Your task to perform on an android device: uninstall "Flipkart Online Shopping App" Image 0: 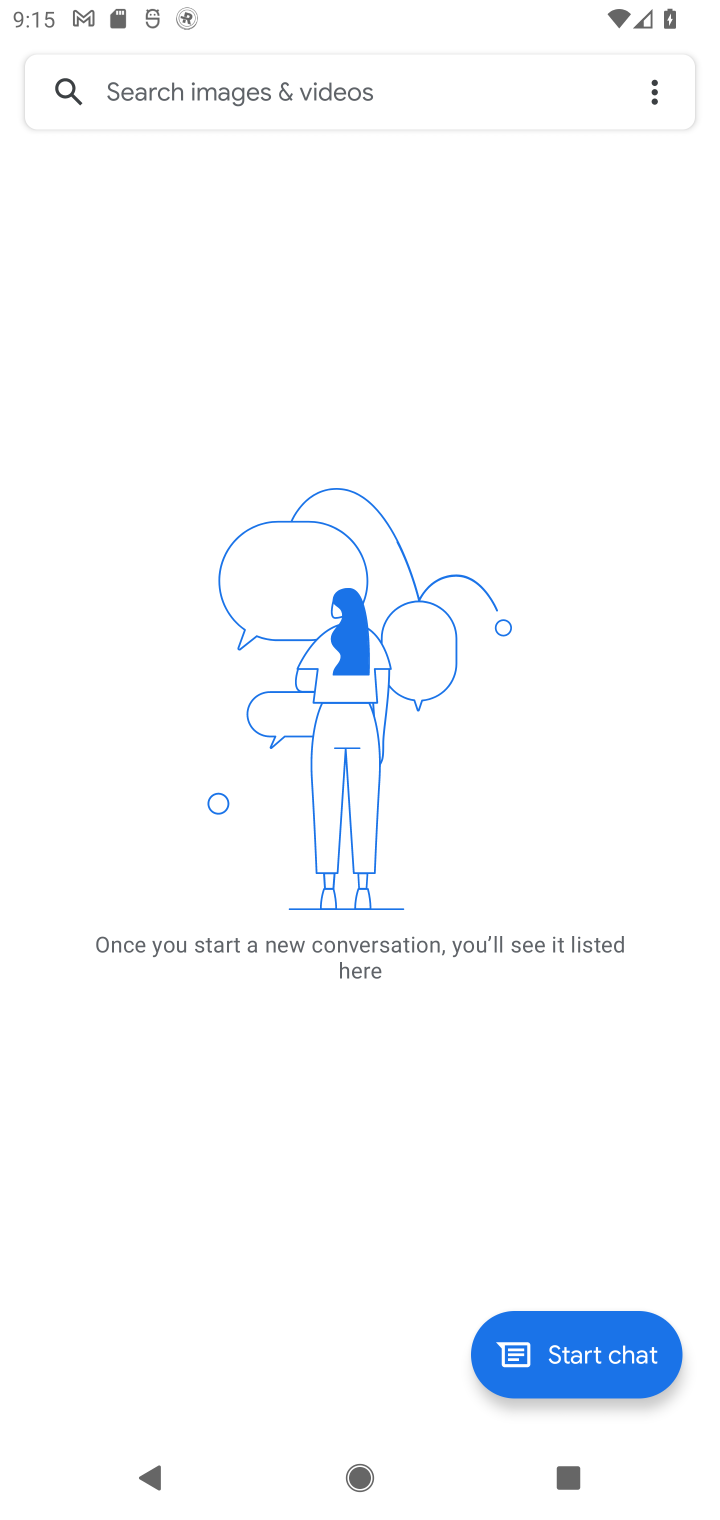
Step 0: press home button
Your task to perform on an android device: uninstall "Flipkart Online Shopping App" Image 1: 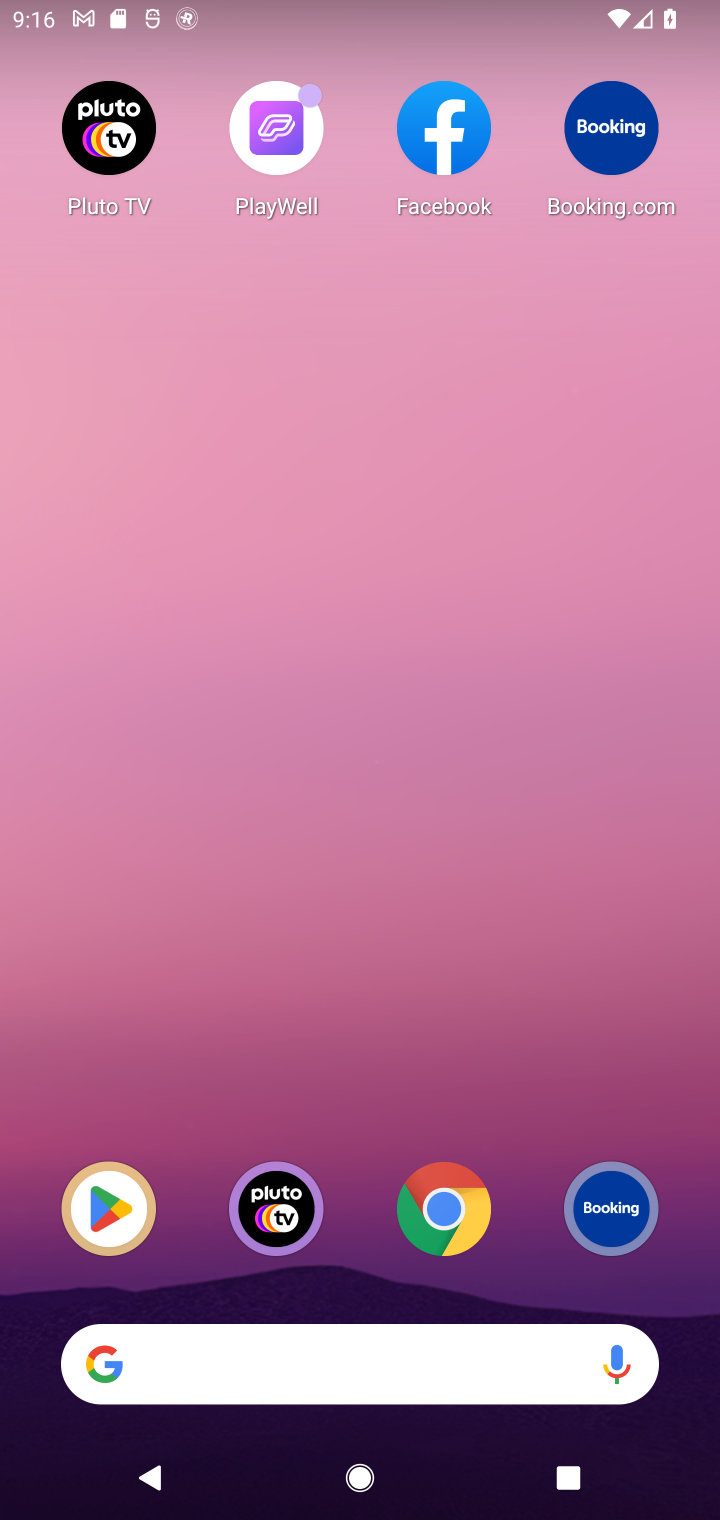
Step 1: drag from (291, 1357) to (385, 86)
Your task to perform on an android device: uninstall "Flipkart Online Shopping App" Image 2: 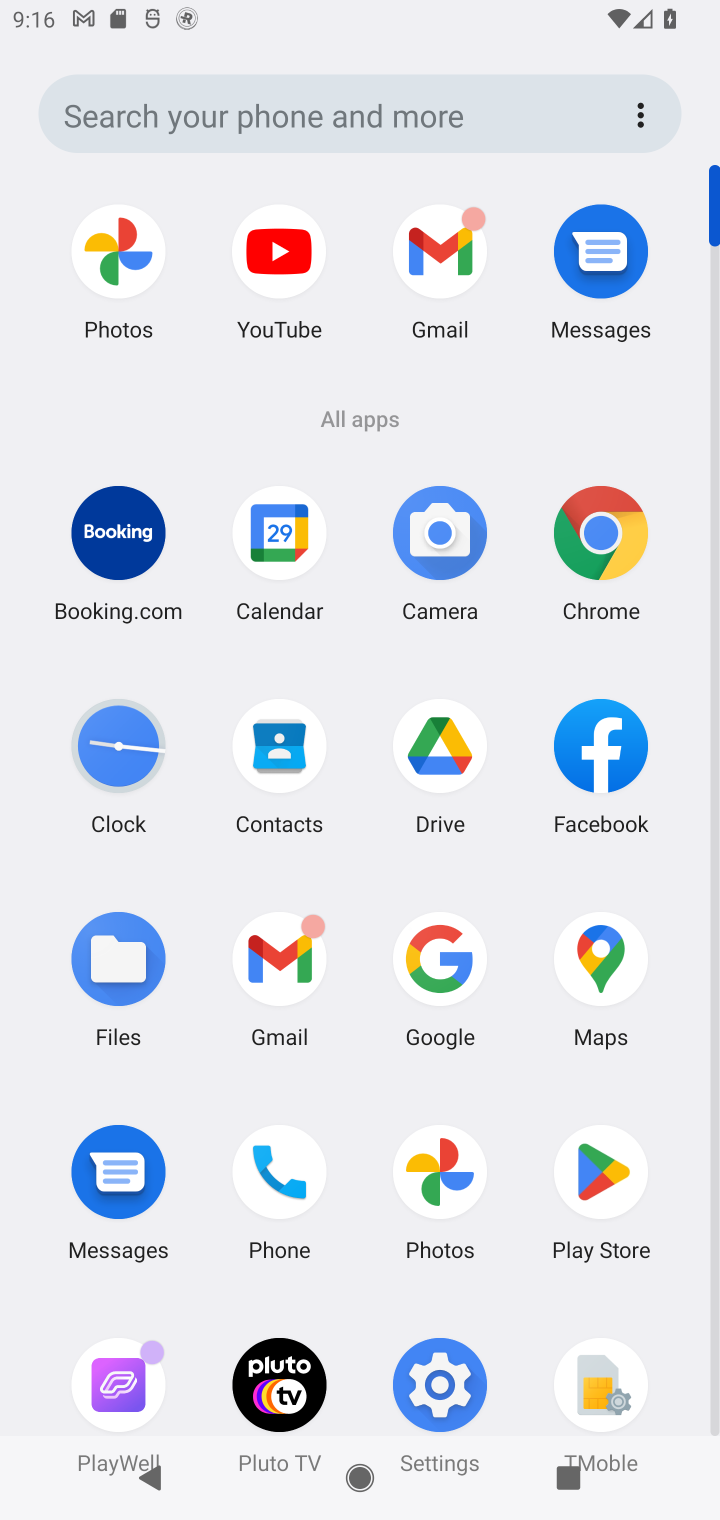
Step 2: click (608, 1164)
Your task to perform on an android device: uninstall "Flipkart Online Shopping App" Image 3: 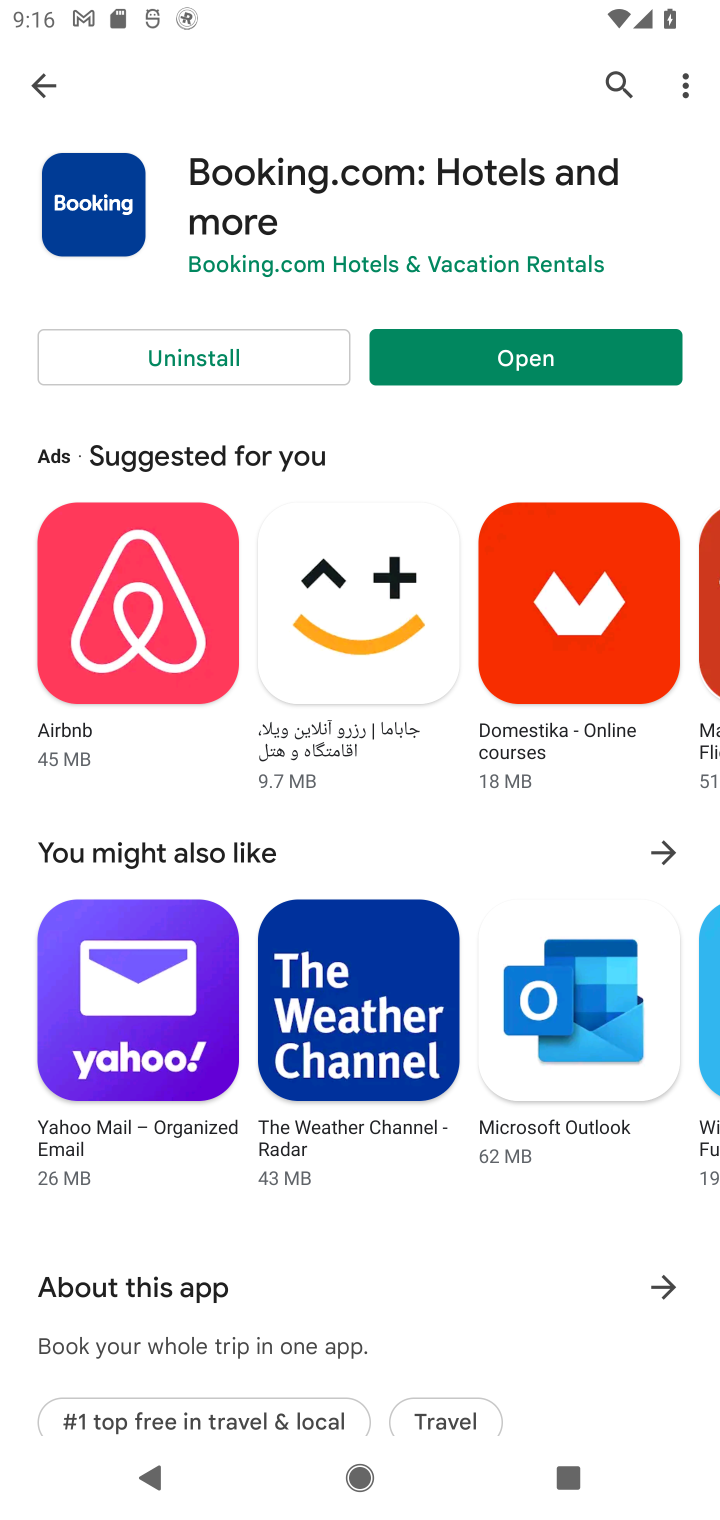
Step 3: click (621, 86)
Your task to perform on an android device: uninstall "Flipkart Online Shopping App" Image 4: 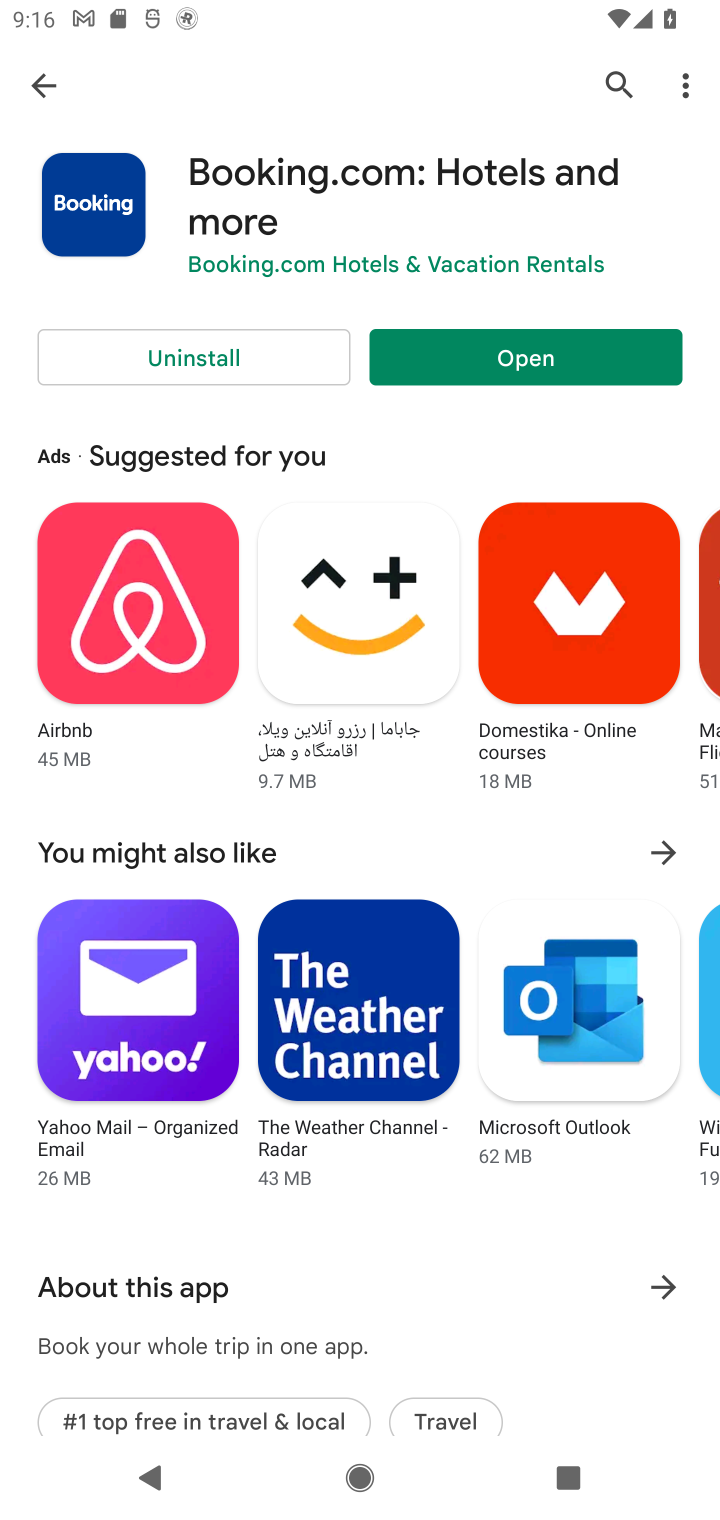
Step 4: click (618, 85)
Your task to perform on an android device: uninstall "Flipkart Online Shopping App" Image 5: 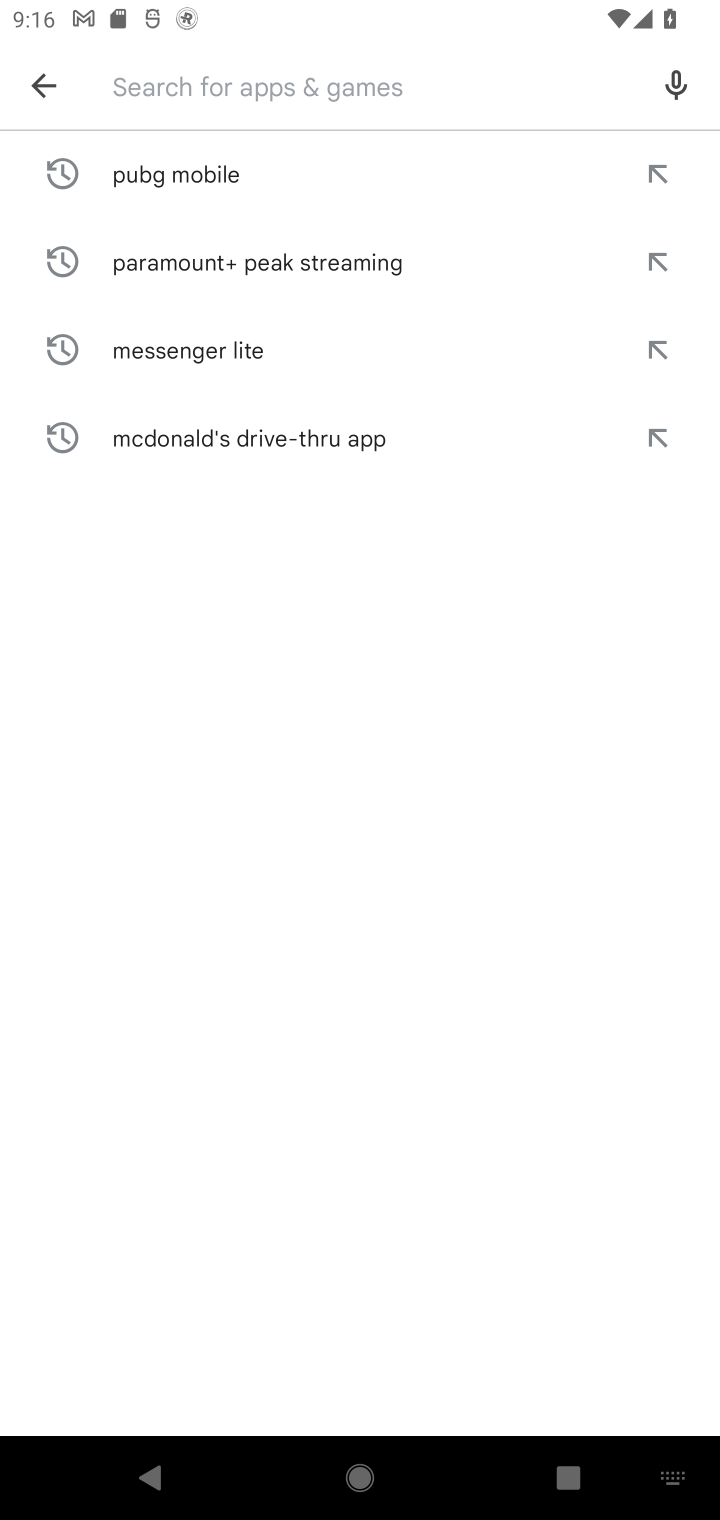
Step 5: type "Flipkart Online Shopping App"
Your task to perform on an android device: uninstall "Flipkart Online Shopping App" Image 6: 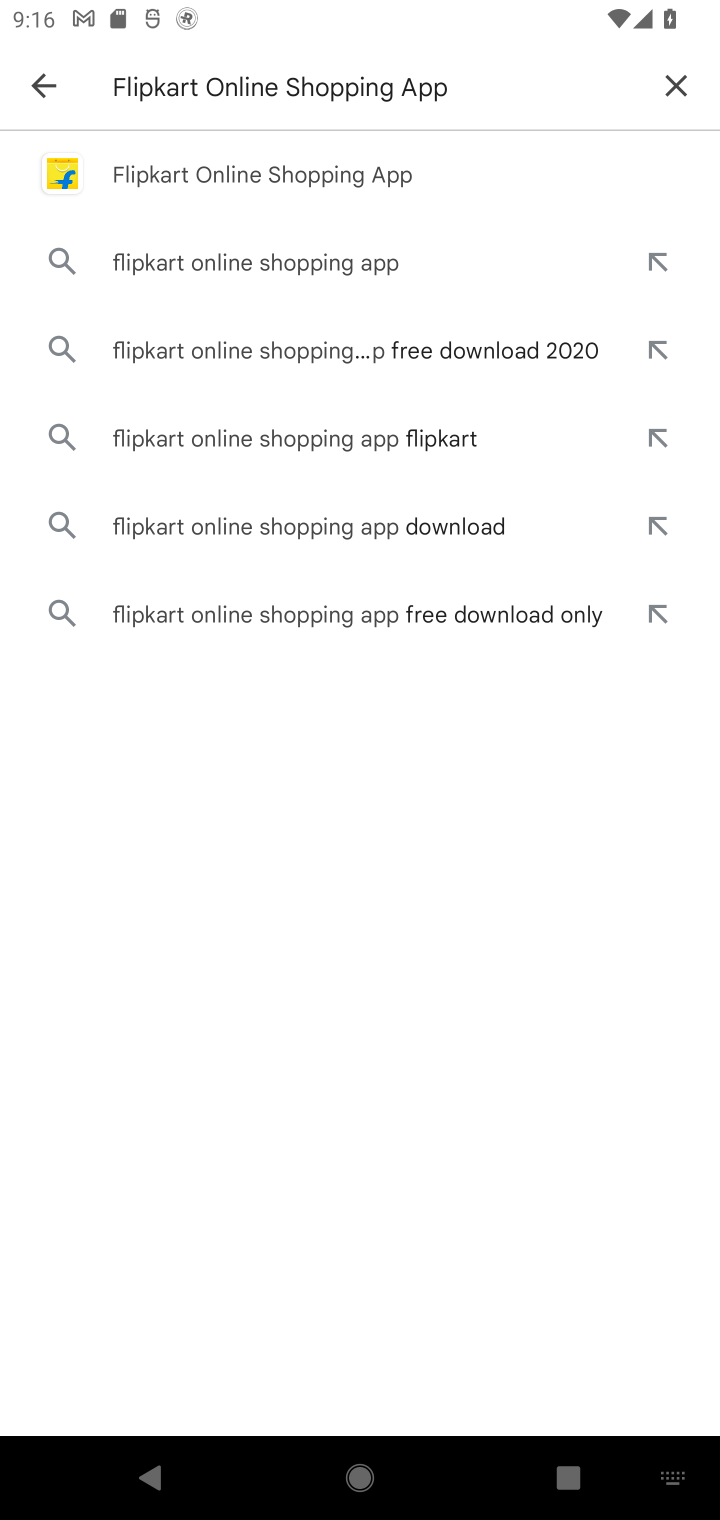
Step 6: click (205, 159)
Your task to perform on an android device: uninstall "Flipkart Online Shopping App" Image 7: 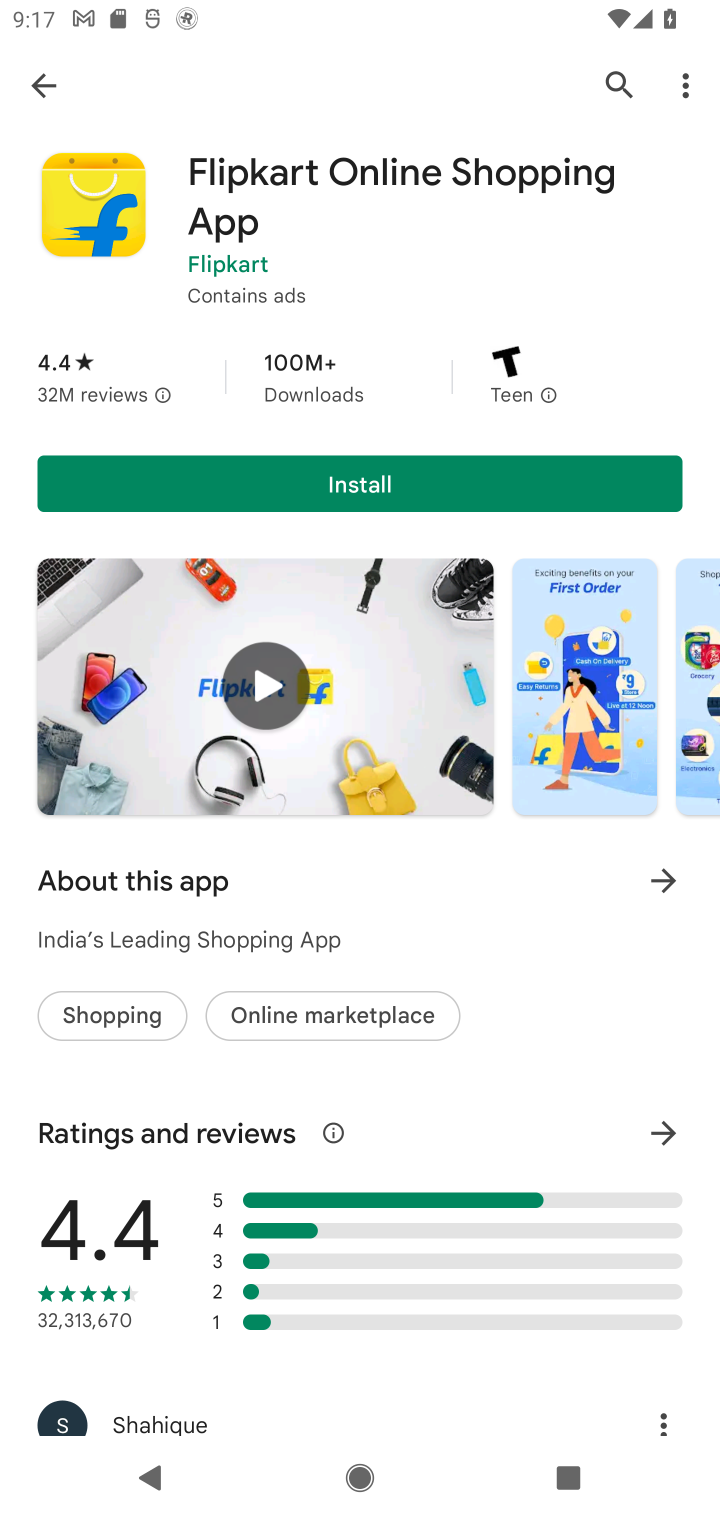
Step 7: task complete